Your task to perform on an android device: Search for top rated burger restaurants on Google Maps Image 0: 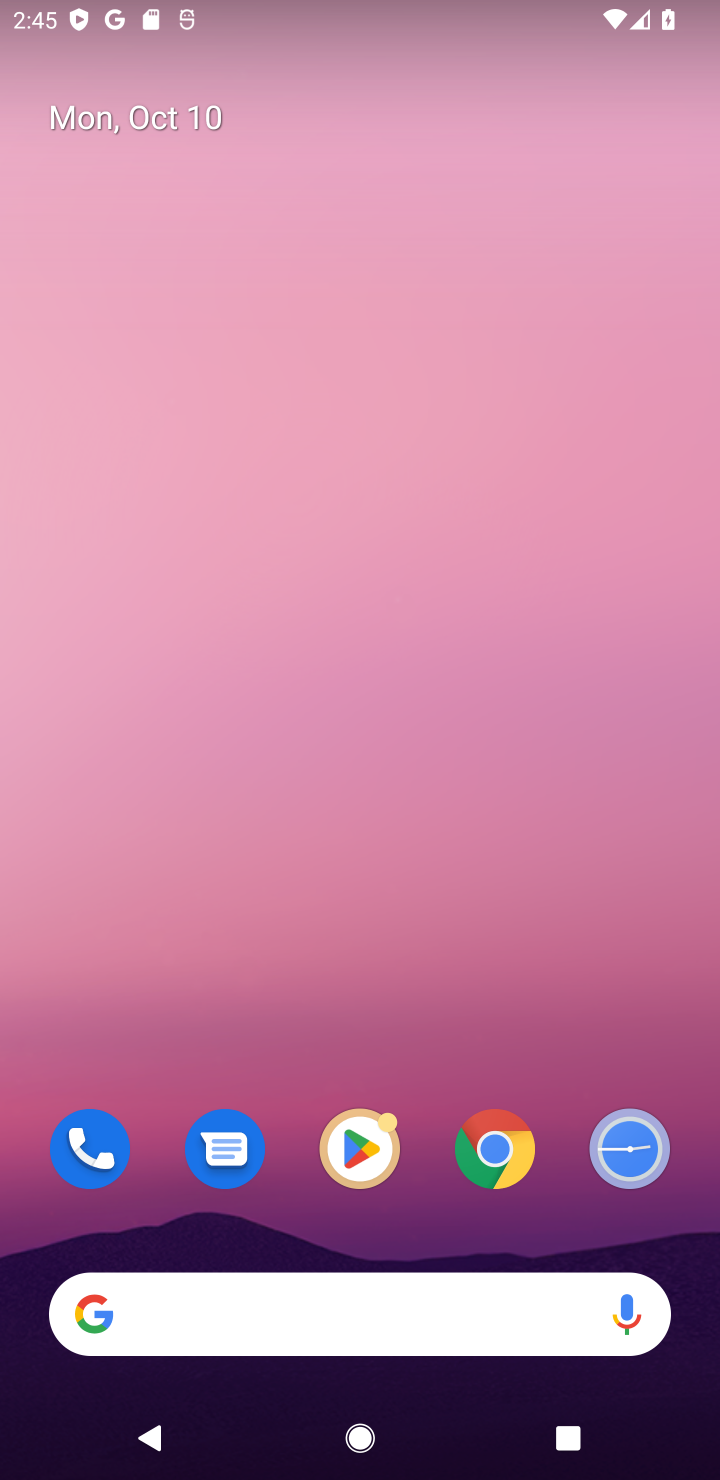
Step 0: drag from (285, 1241) to (303, 268)
Your task to perform on an android device: Search for top rated burger restaurants on Google Maps Image 1: 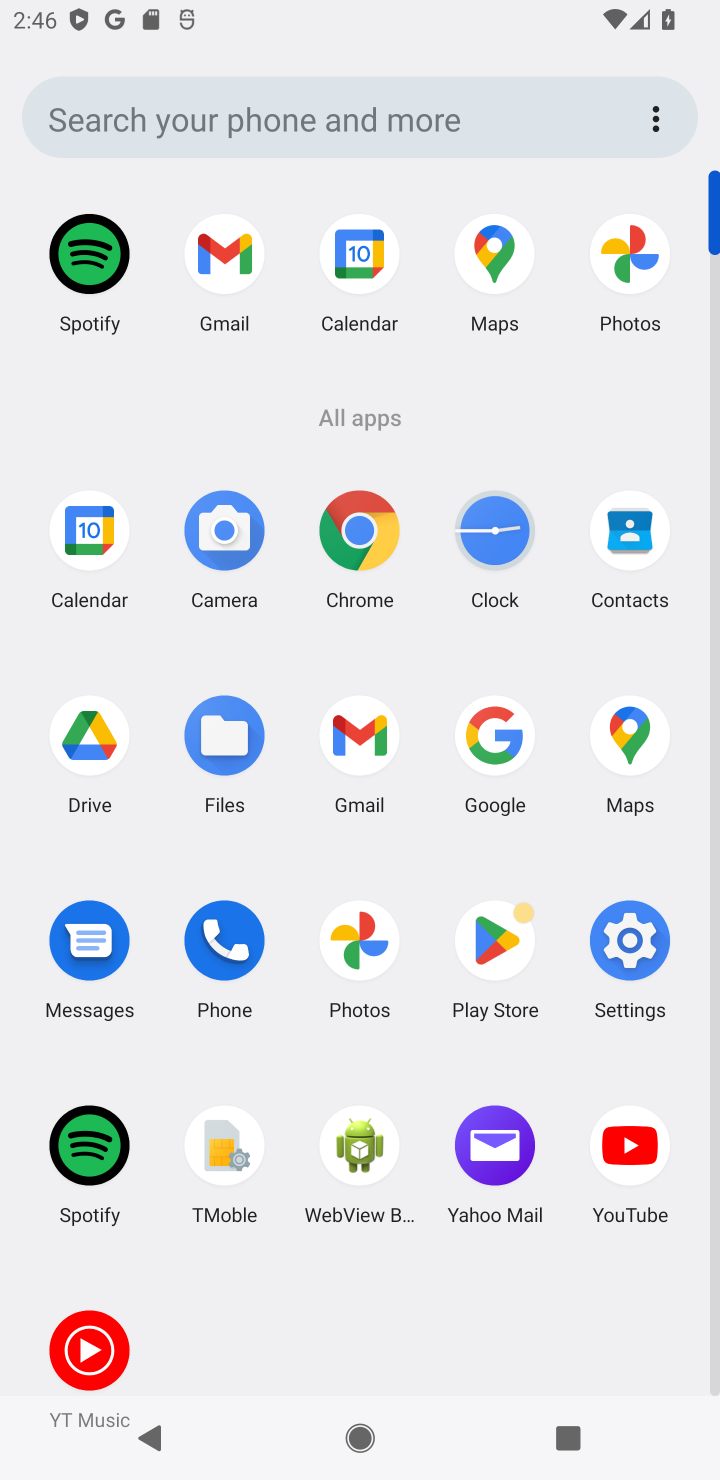
Step 1: click (495, 279)
Your task to perform on an android device: Search for top rated burger restaurants on Google Maps Image 2: 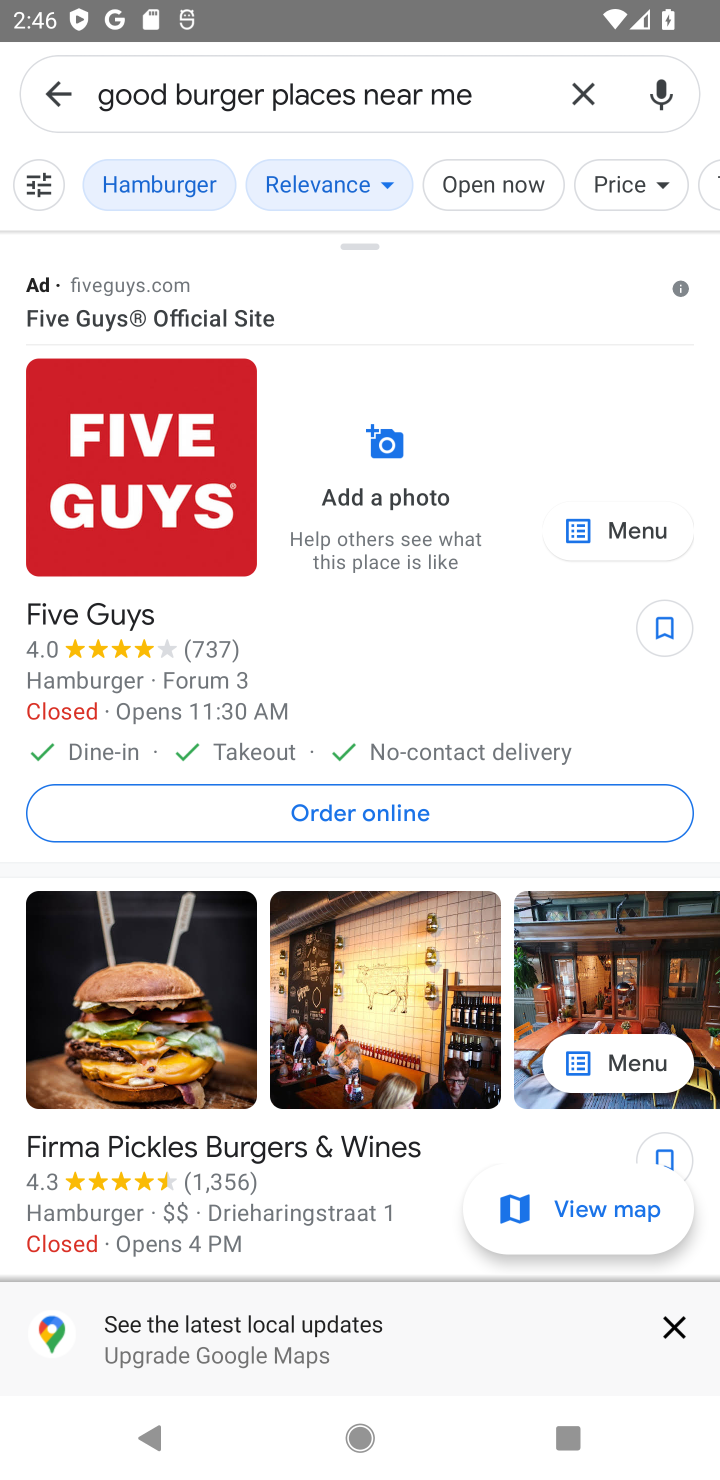
Step 2: click (590, 62)
Your task to perform on an android device: Search for top rated burger restaurants on Google Maps Image 3: 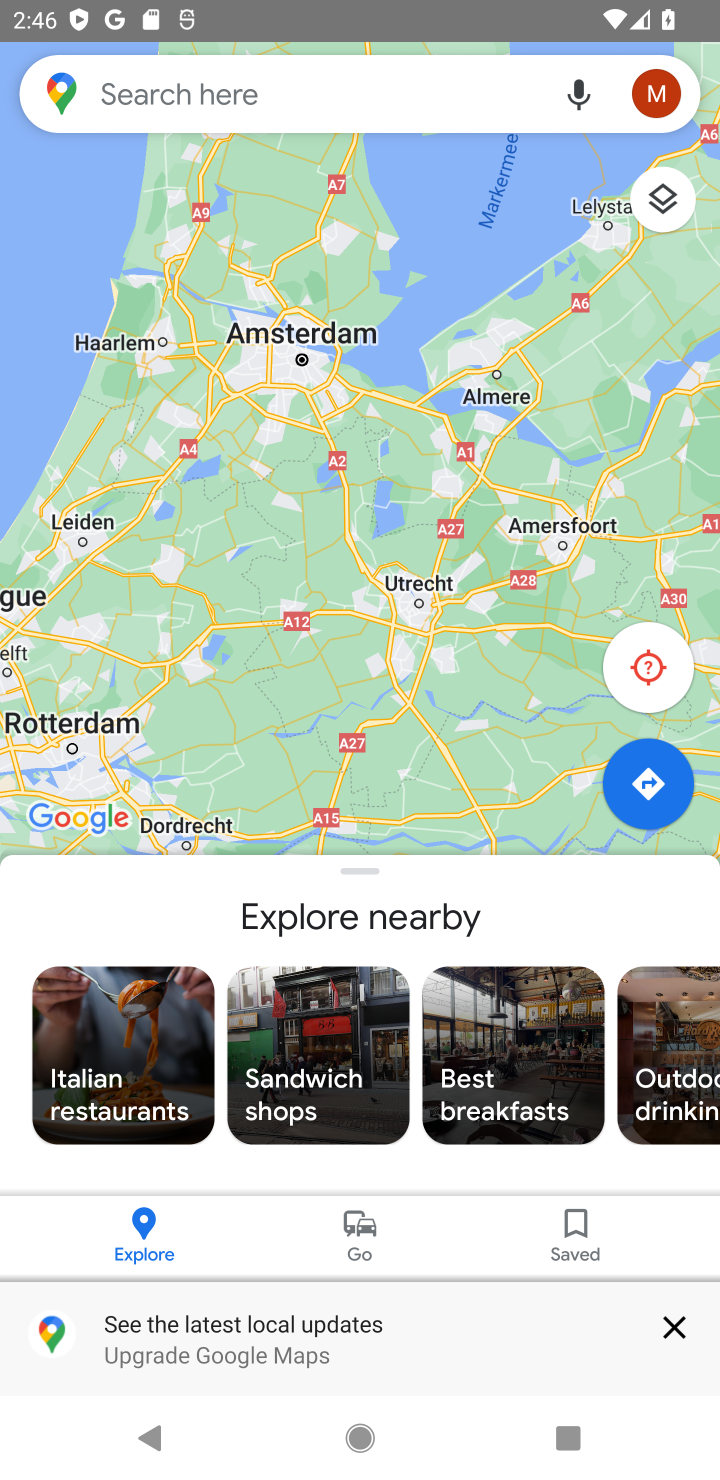
Step 3: type " top rated burger restaurants "
Your task to perform on an android device: Search for top rated burger restaurants on Google Maps Image 4: 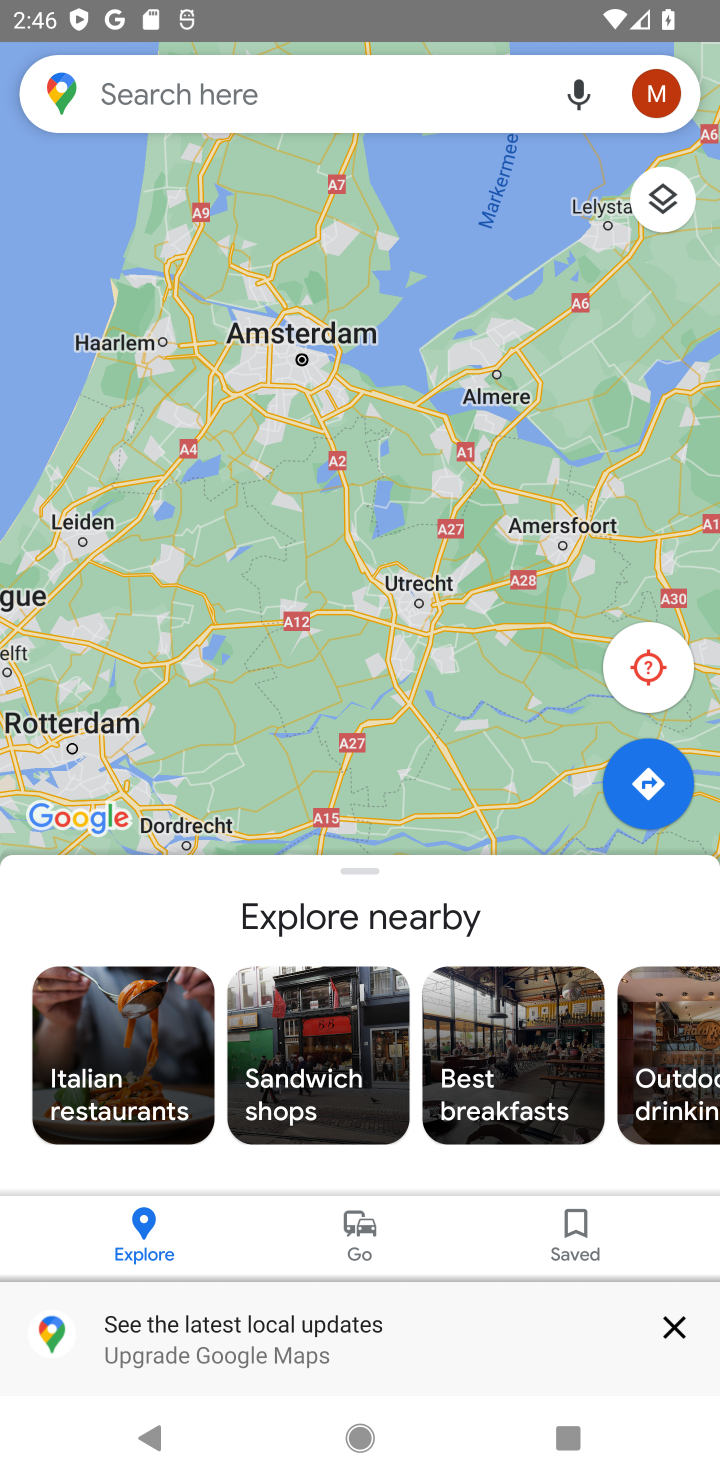
Step 4: task complete